Your task to perform on an android device: Go to Maps Image 0: 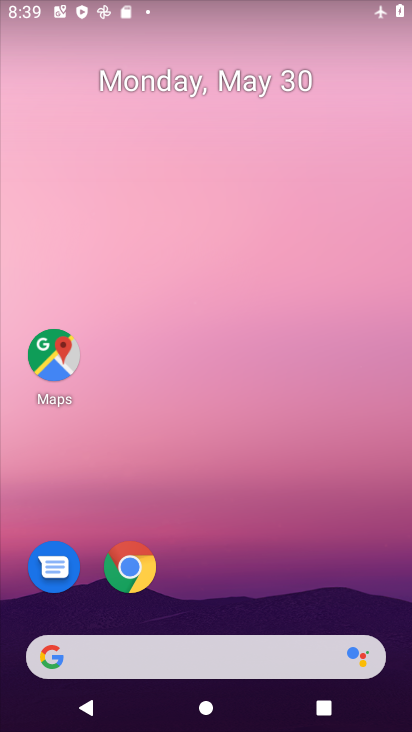
Step 0: click (56, 356)
Your task to perform on an android device: Go to Maps Image 1: 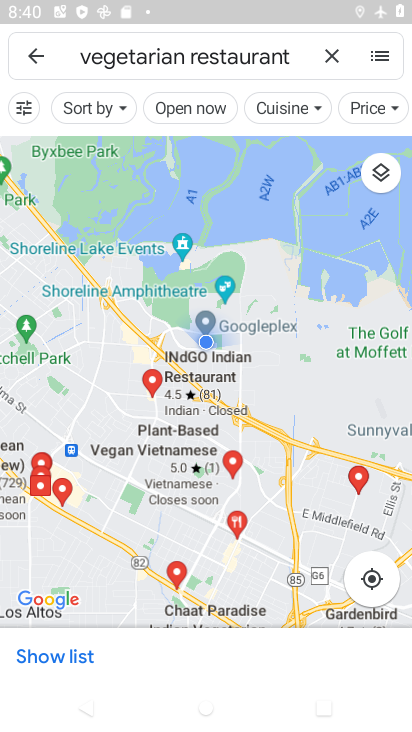
Step 1: task complete